Your task to perform on an android device: turn vacation reply on in the gmail app Image 0: 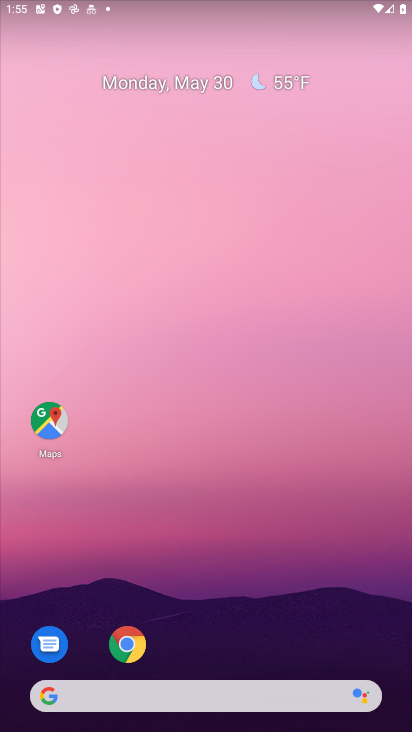
Step 0: drag from (392, 652) to (223, 193)
Your task to perform on an android device: turn vacation reply on in the gmail app Image 1: 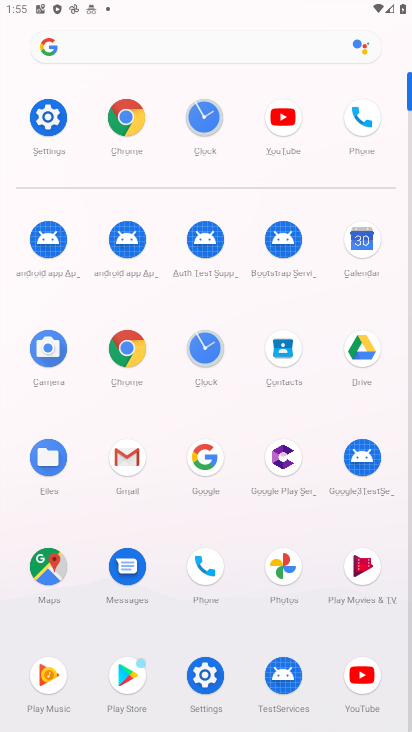
Step 1: click (147, 469)
Your task to perform on an android device: turn vacation reply on in the gmail app Image 2: 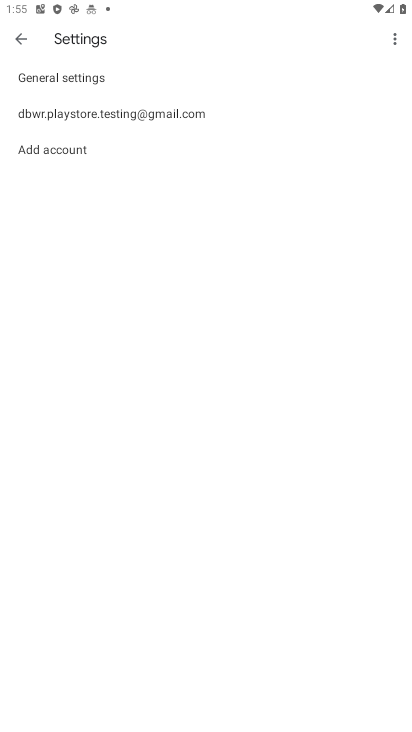
Step 2: click (31, 36)
Your task to perform on an android device: turn vacation reply on in the gmail app Image 3: 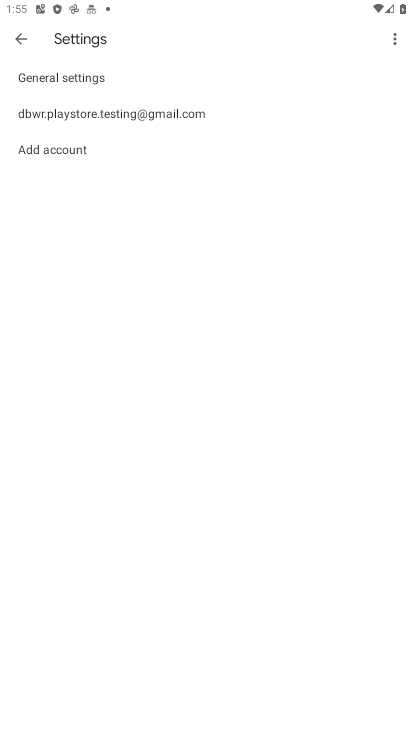
Step 3: click (31, 36)
Your task to perform on an android device: turn vacation reply on in the gmail app Image 4: 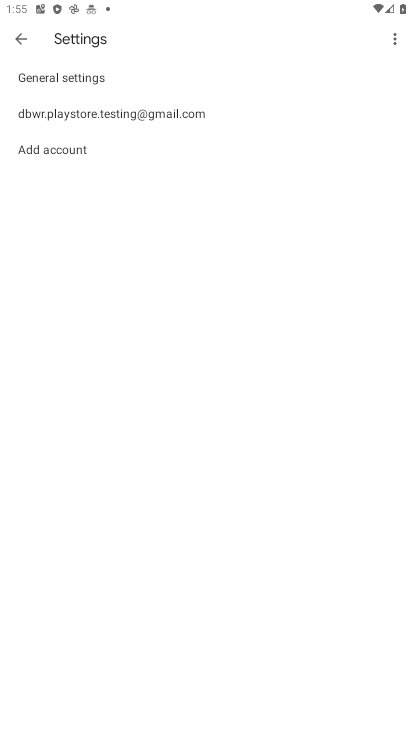
Step 4: click (65, 109)
Your task to perform on an android device: turn vacation reply on in the gmail app Image 5: 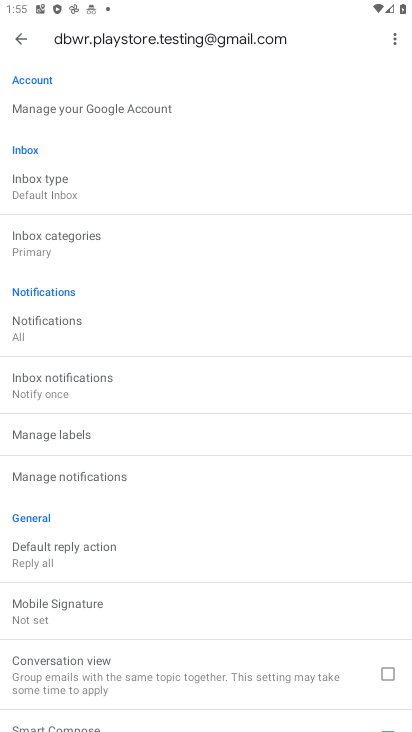
Step 5: task complete